Your task to perform on an android device: turn on improve location accuracy Image 0: 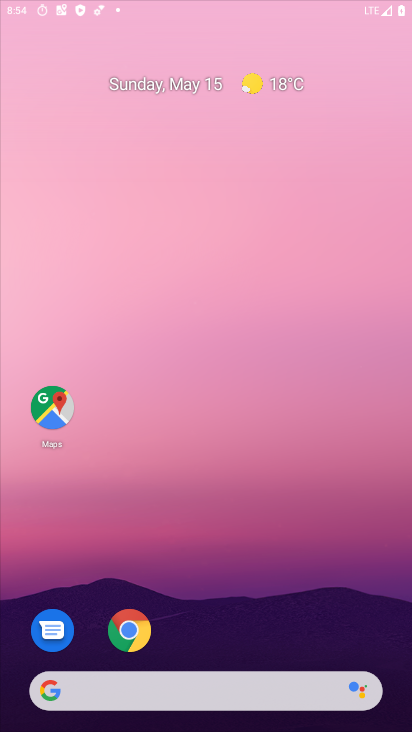
Step 0: click (274, 117)
Your task to perform on an android device: turn on improve location accuracy Image 1: 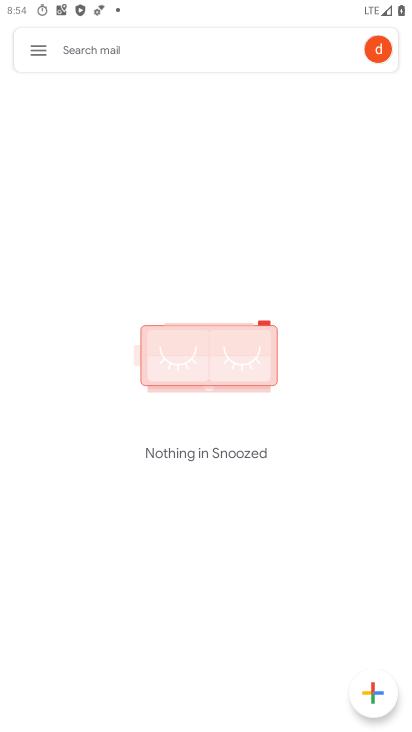
Step 1: drag from (213, 517) to (244, 209)
Your task to perform on an android device: turn on improve location accuracy Image 2: 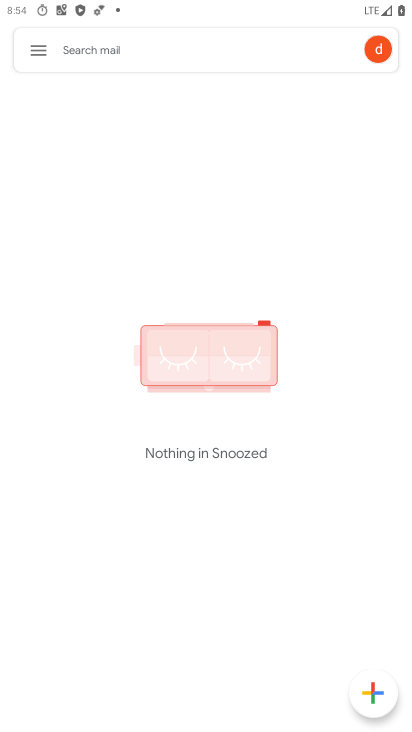
Step 2: drag from (237, 547) to (310, 226)
Your task to perform on an android device: turn on improve location accuracy Image 3: 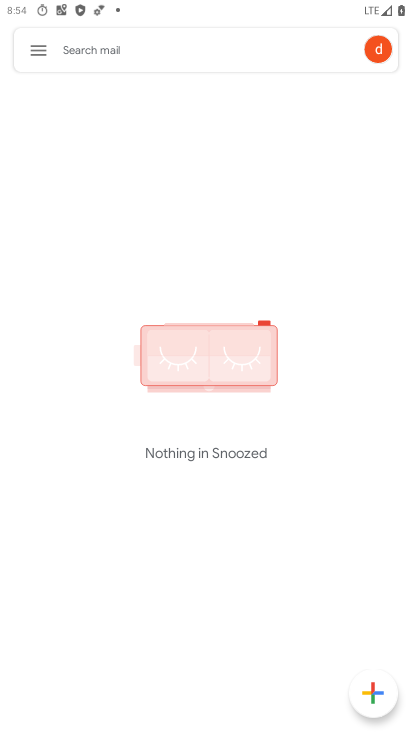
Step 3: click (45, 49)
Your task to perform on an android device: turn on improve location accuracy Image 4: 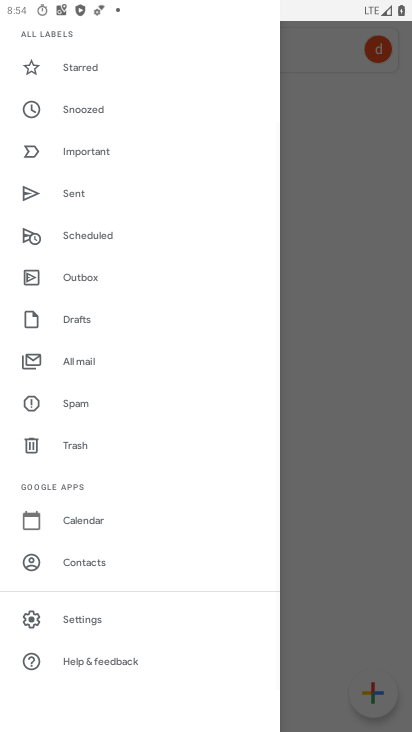
Step 4: drag from (122, 181) to (231, 642)
Your task to perform on an android device: turn on improve location accuracy Image 5: 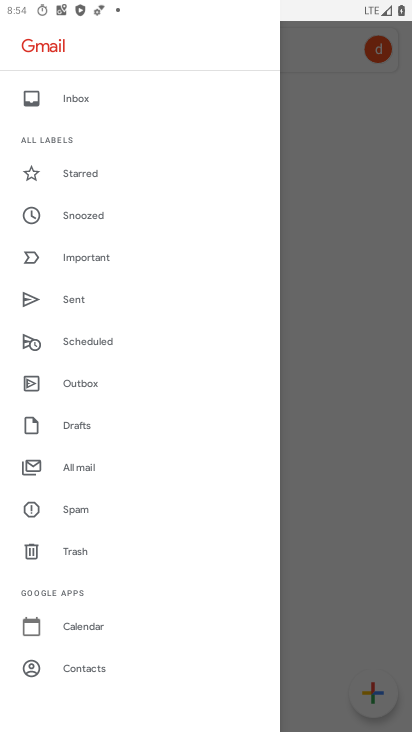
Step 5: click (403, 382)
Your task to perform on an android device: turn on improve location accuracy Image 6: 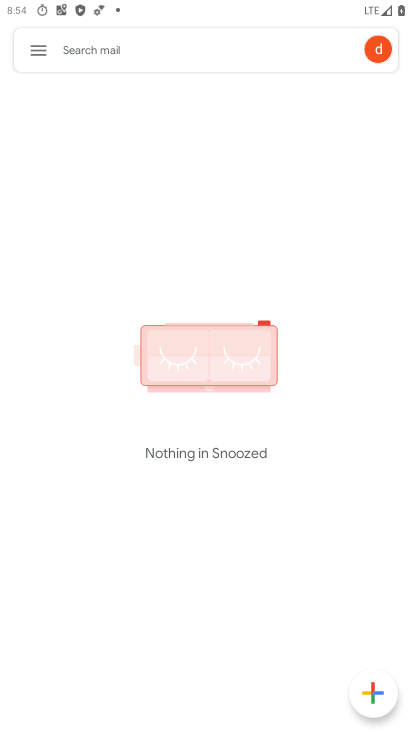
Step 6: press home button
Your task to perform on an android device: turn on improve location accuracy Image 7: 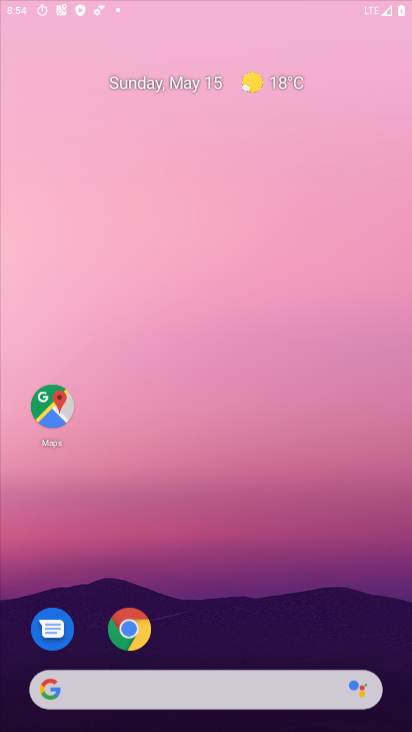
Step 7: drag from (220, 507) to (245, 52)
Your task to perform on an android device: turn on improve location accuracy Image 8: 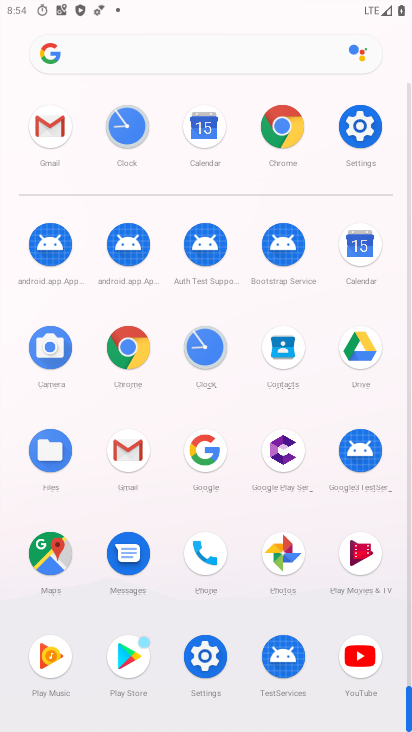
Step 8: drag from (259, 671) to (227, 58)
Your task to perform on an android device: turn on improve location accuracy Image 9: 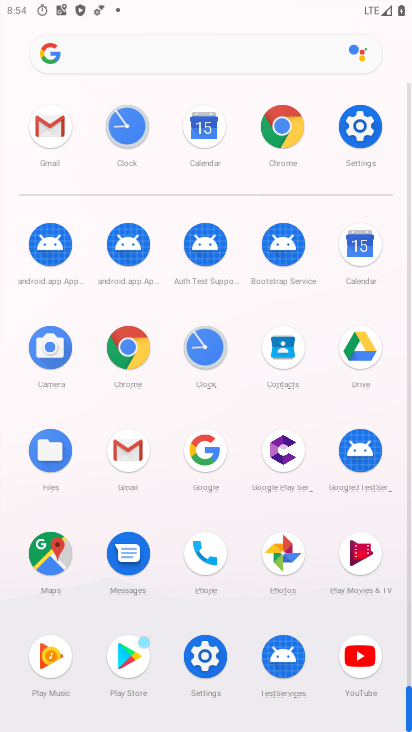
Step 9: click (359, 120)
Your task to perform on an android device: turn on improve location accuracy Image 10: 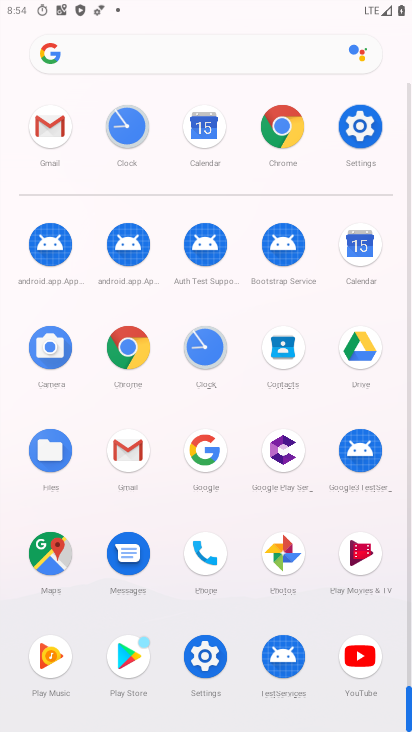
Step 10: click (359, 120)
Your task to perform on an android device: turn on improve location accuracy Image 11: 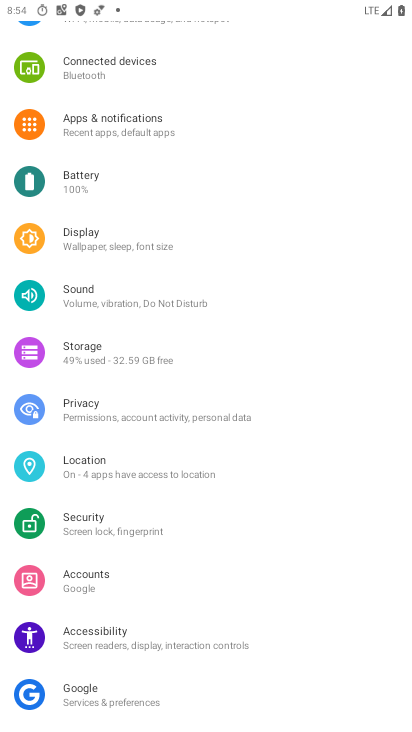
Step 11: click (138, 469)
Your task to perform on an android device: turn on improve location accuracy Image 12: 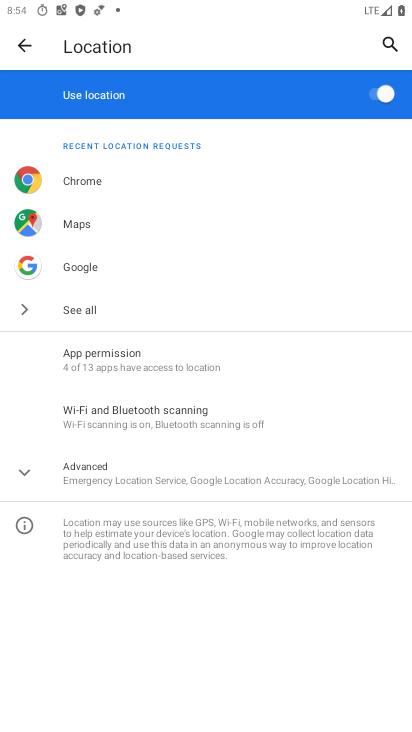
Step 12: click (76, 480)
Your task to perform on an android device: turn on improve location accuracy Image 13: 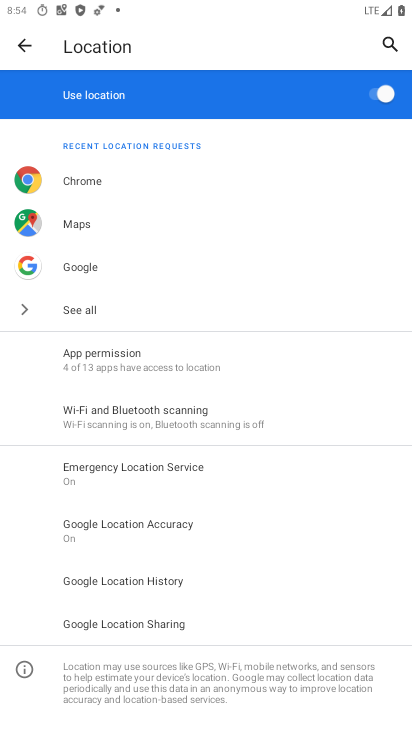
Step 13: click (185, 526)
Your task to perform on an android device: turn on improve location accuracy Image 14: 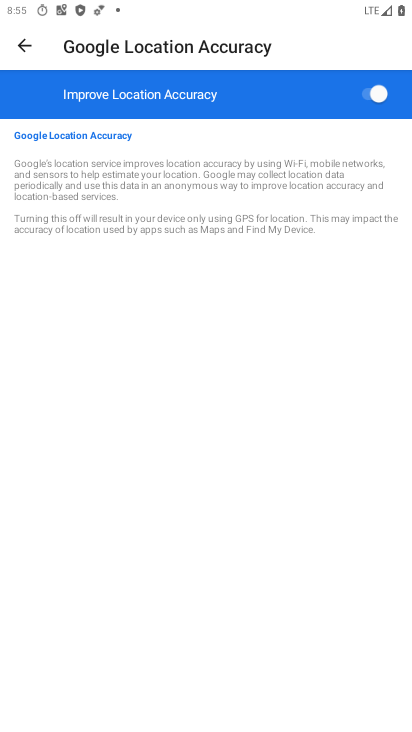
Step 14: task complete